Your task to perform on an android device: visit the assistant section in the google photos Image 0: 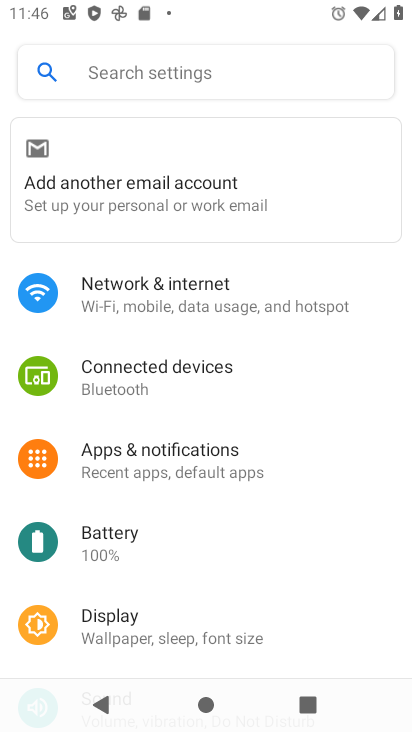
Step 0: press home button
Your task to perform on an android device: visit the assistant section in the google photos Image 1: 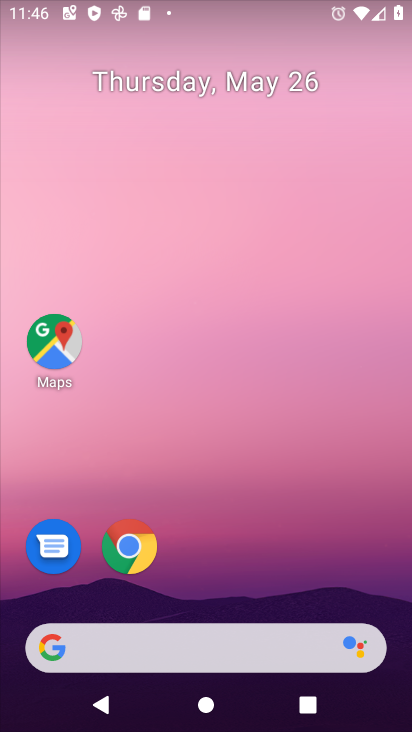
Step 1: drag from (233, 583) to (177, 117)
Your task to perform on an android device: visit the assistant section in the google photos Image 2: 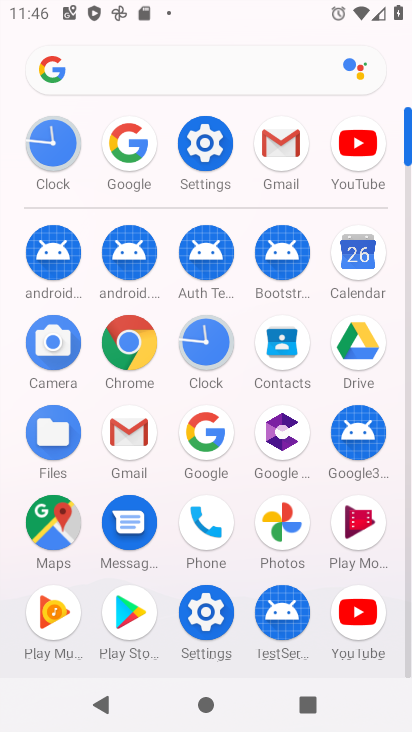
Step 2: click (285, 528)
Your task to perform on an android device: visit the assistant section in the google photos Image 3: 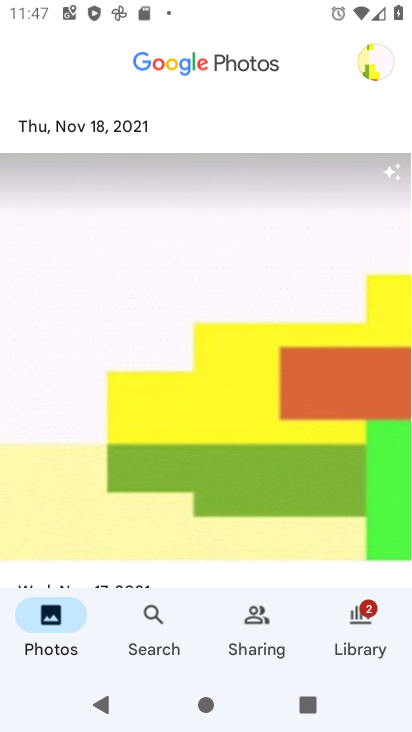
Step 3: task complete